Your task to perform on an android device: turn on bluetooth scan Image 0: 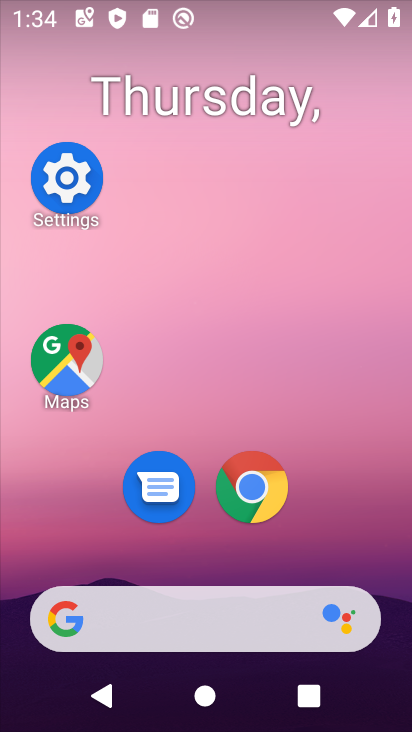
Step 0: click (66, 178)
Your task to perform on an android device: turn on bluetooth scan Image 1: 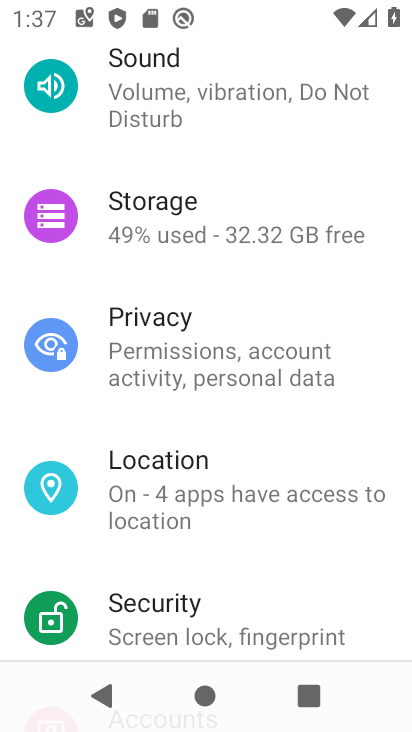
Step 1: drag from (267, 524) to (224, 632)
Your task to perform on an android device: turn on bluetooth scan Image 2: 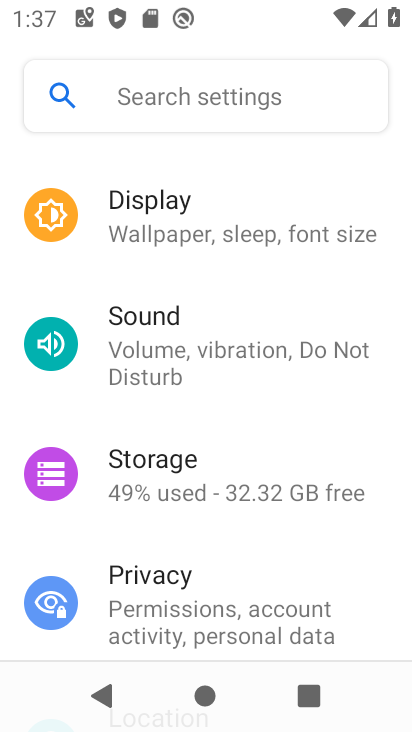
Step 2: drag from (296, 481) to (357, 158)
Your task to perform on an android device: turn on bluetooth scan Image 3: 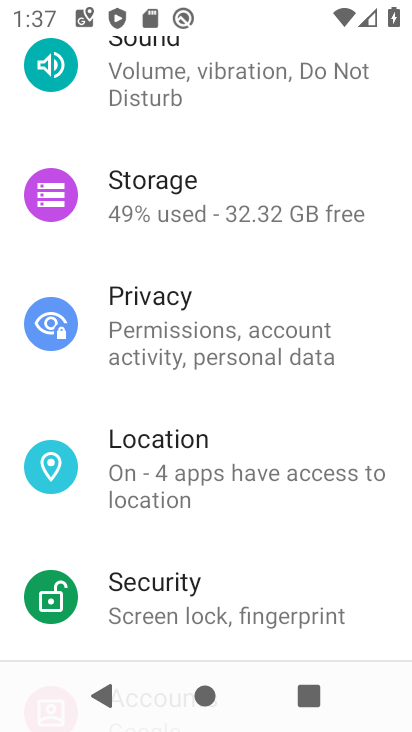
Step 3: click (213, 458)
Your task to perform on an android device: turn on bluetooth scan Image 4: 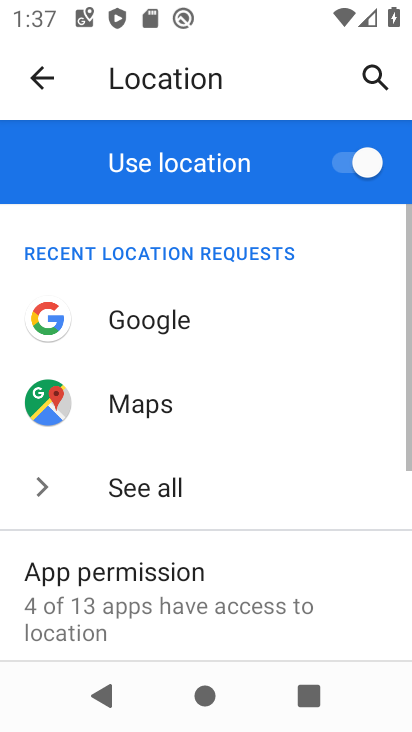
Step 4: drag from (251, 531) to (317, 197)
Your task to perform on an android device: turn on bluetooth scan Image 5: 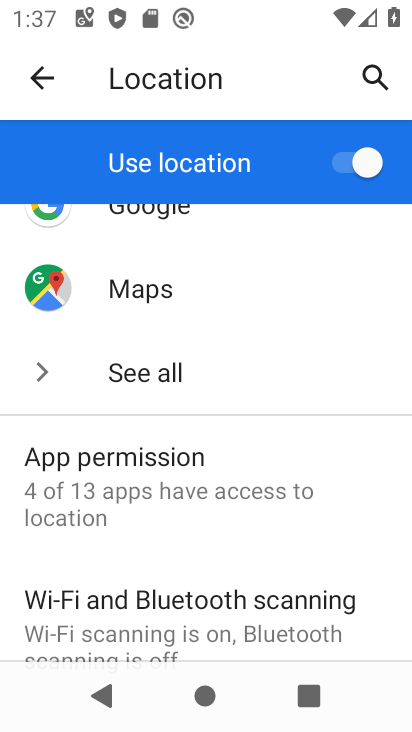
Step 5: drag from (268, 553) to (316, 252)
Your task to perform on an android device: turn on bluetooth scan Image 6: 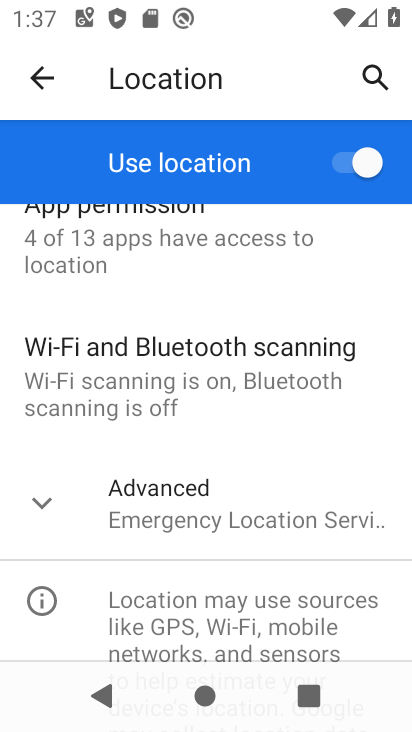
Step 6: click (243, 369)
Your task to perform on an android device: turn on bluetooth scan Image 7: 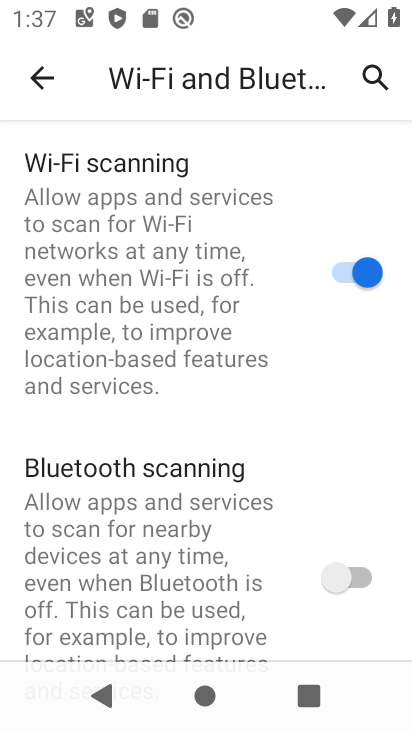
Step 7: click (342, 582)
Your task to perform on an android device: turn on bluetooth scan Image 8: 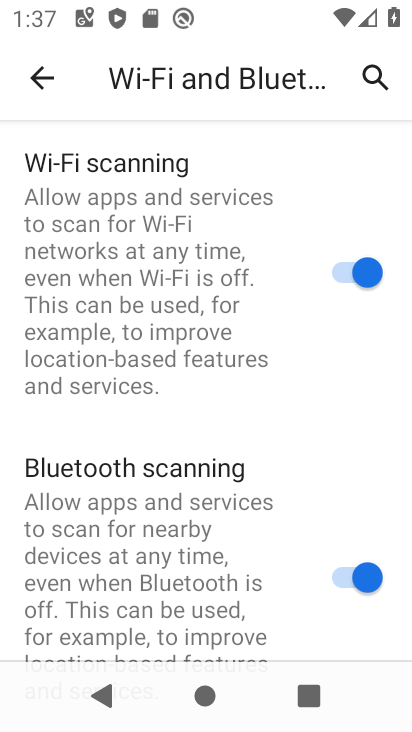
Step 8: task complete